Your task to perform on an android device: toggle notifications settings in the gmail app Image 0: 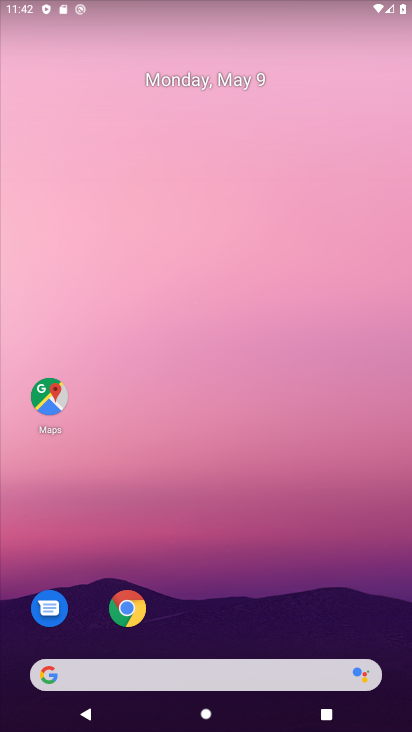
Step 0: drag from (225, 651) to (233, 2)
Your task to perform on an android device: toggle notifications settings in the gmail app Image 1: 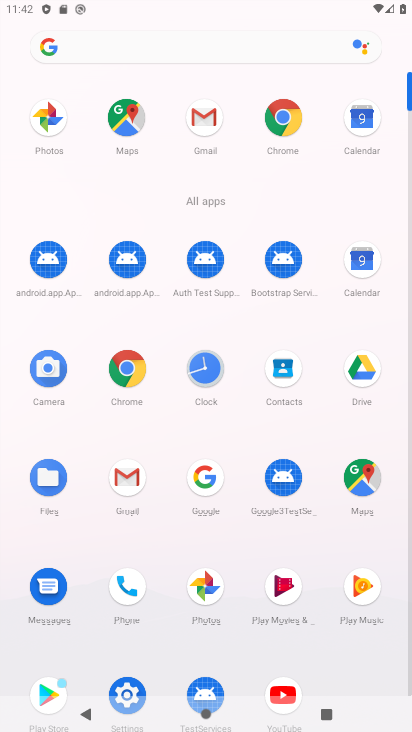
Step 1: click (130, 498)
Your task to perform on an android device: toggle notifications settings in the gmail app Image 2: 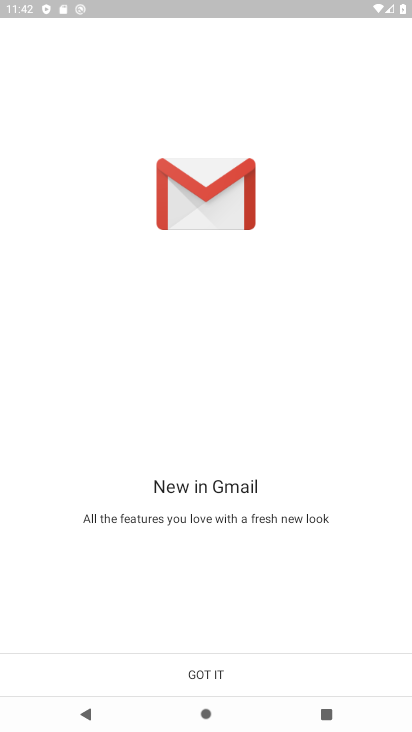
Step 2: click (181, 683)
Your task to perform on an android device: toggle notifications settings in the gmail app Image 3: 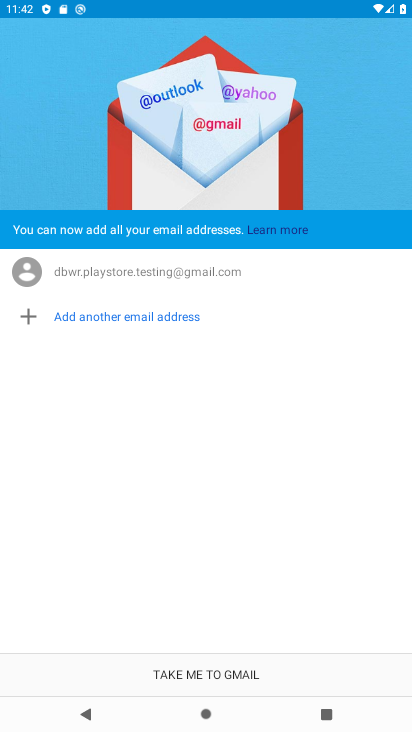
Step 3: click (181, 683)
Your task to perform on an android device: toggle notifications settings in the gmail app Image 4: 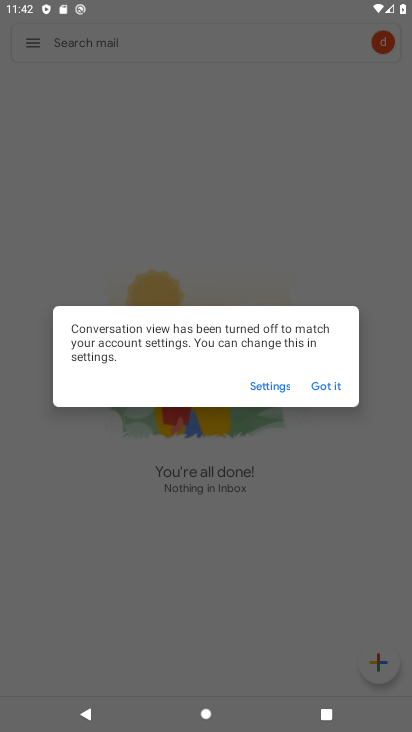
Step 4: click (324, 381)
Your task to perform on an android device: toggle notifications settings in the gmail app Image 5: 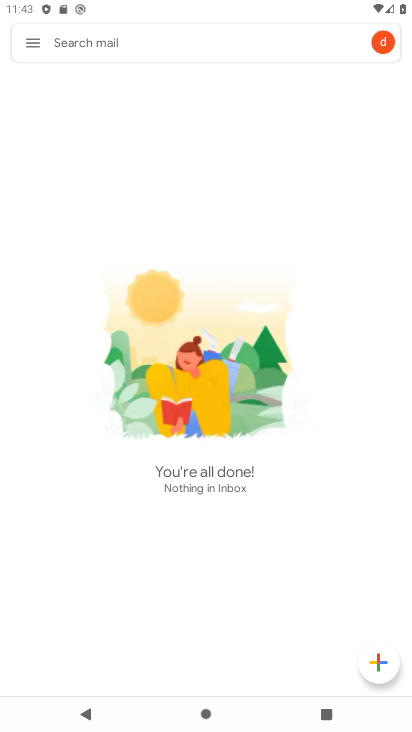
Step 5: click (37, 40)
Your task to perform on an android device: toggle notifications settings in the gmail app Image 6: 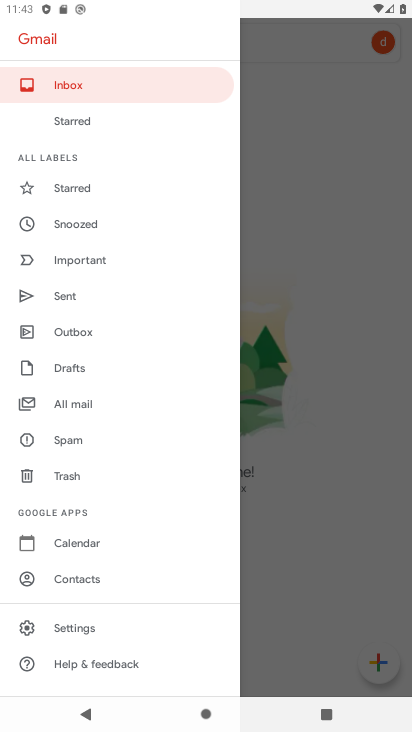
Step 6: click (65, 626)
Your task to perform on an android device: toggle notifications settings in the gmail app Image 7: 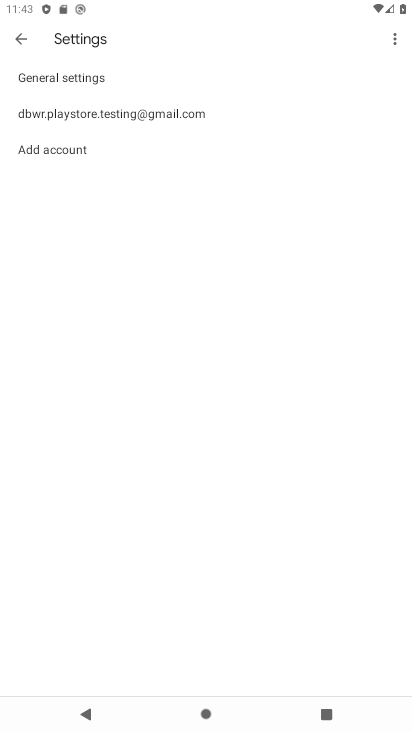
Step 7: click (66, 82)
Your task to perform on an android device: toggle notifications settings in the gmail app Image 8: 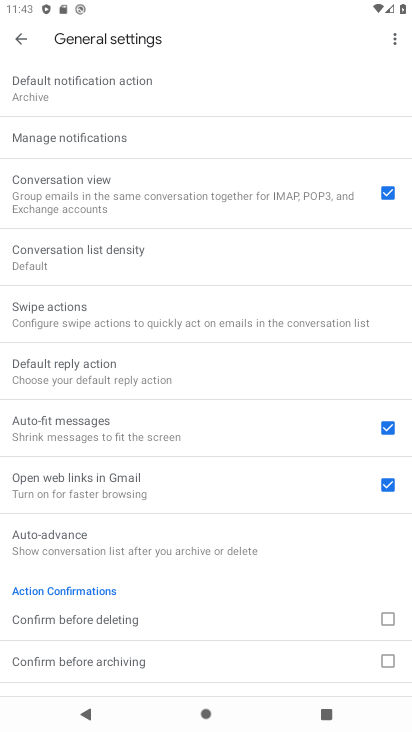
Step 8: click (59, 135)
Your task to perform on an android device: toggle notifications settings in the gmail app Image 9: 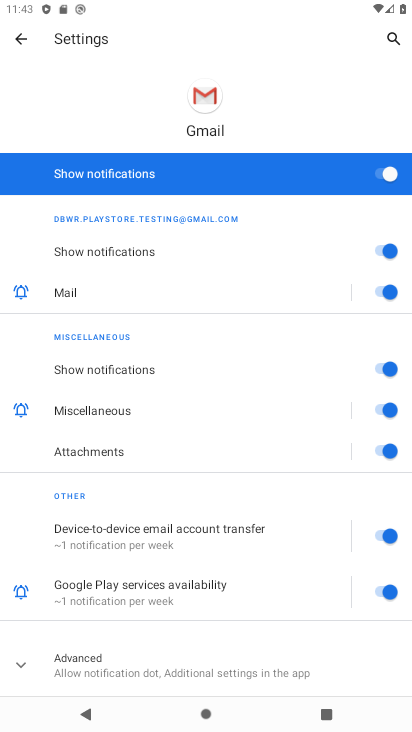
Step 9: click (381, 168)
Your task to perform on an android device: toggle notifications settings in the gmail app Image 10: 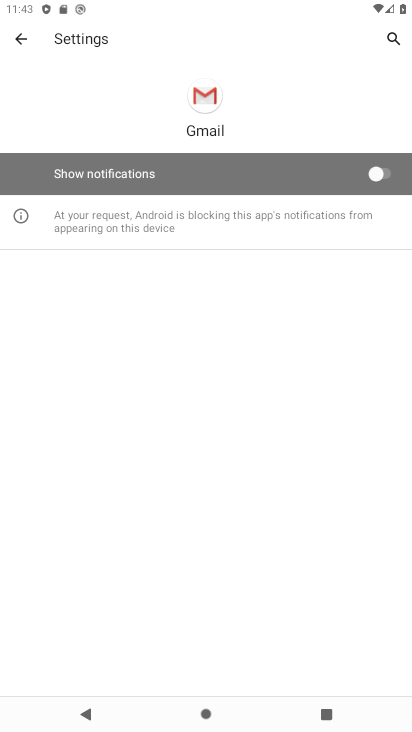
Step 10: task complete